Your task to perform on an android device: toggle airplane mode Image 0: 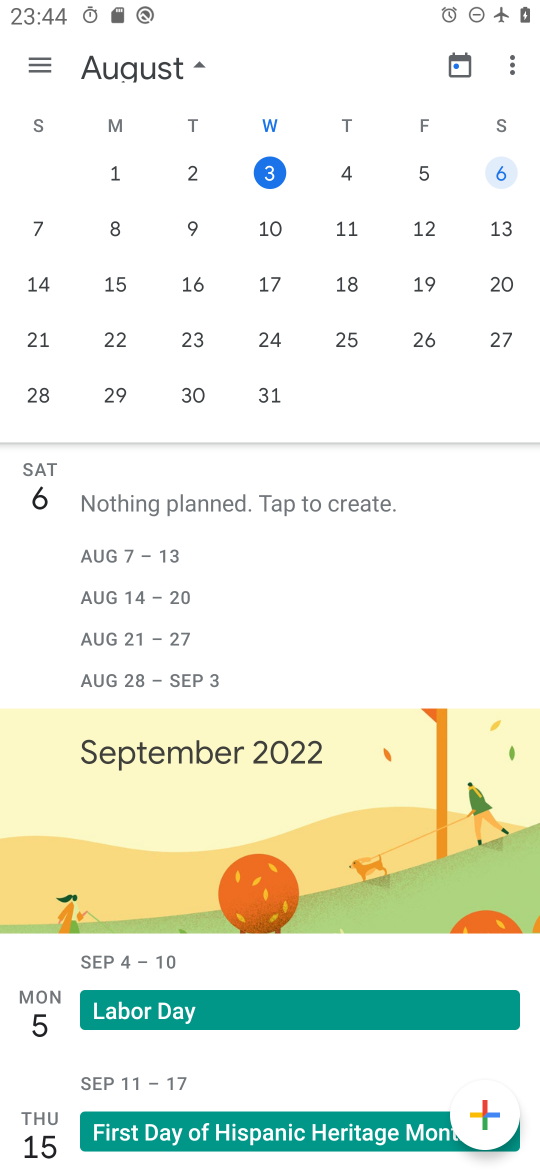
Step 0: press home button
Your task to perform on an android device: toggle airplane mode Image 1: 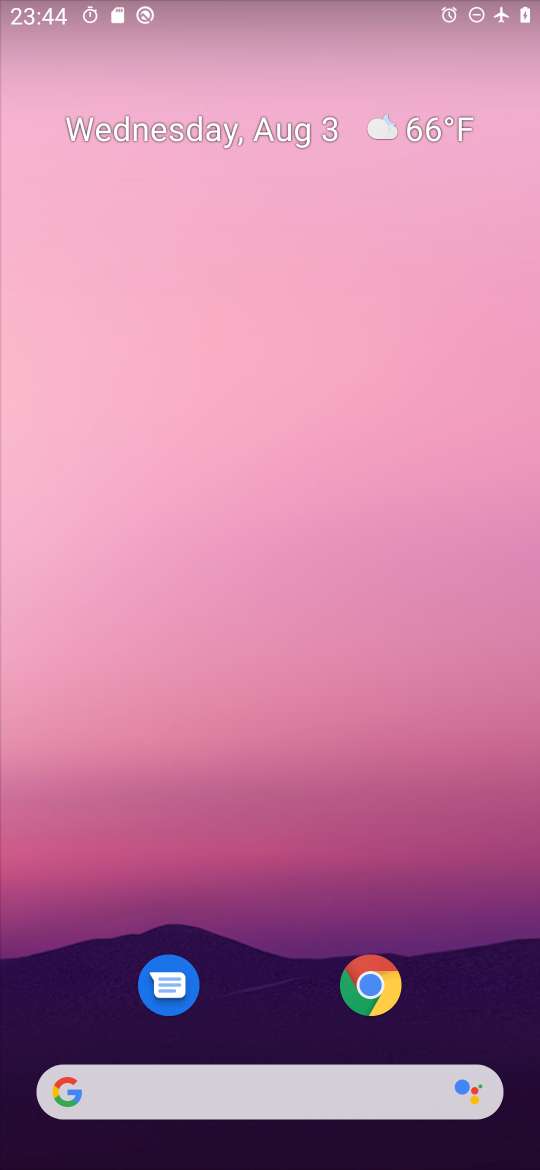
Step 1: drag from (219, 935) to (157, 240)
Your task to perform on an android device: toggle airplane mode Image 2: 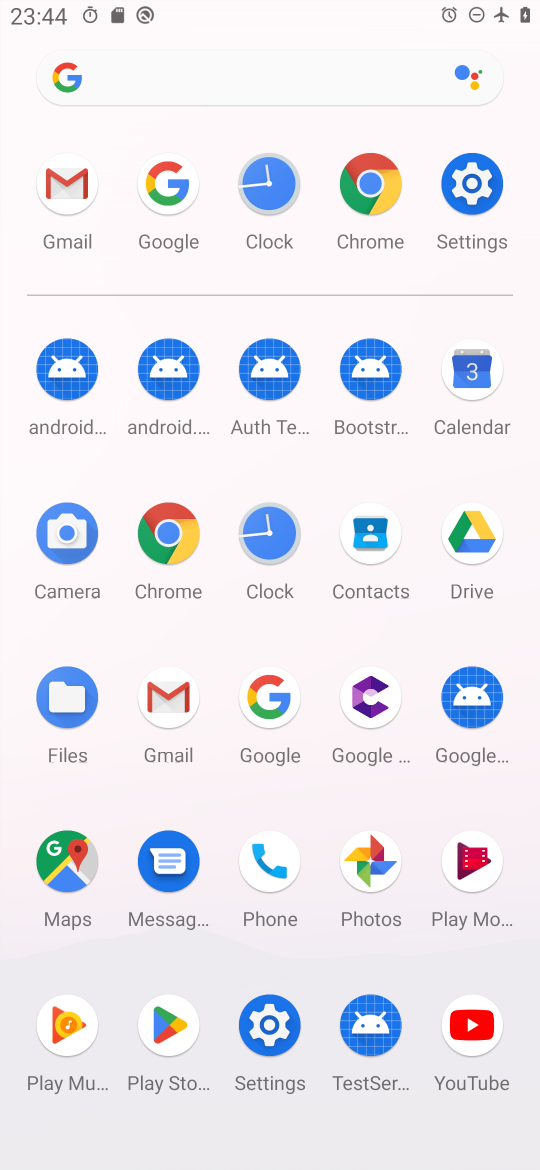
Step 2: click (456, 218)
Your task to perform on an android device: toggle airplane mode Image 3: 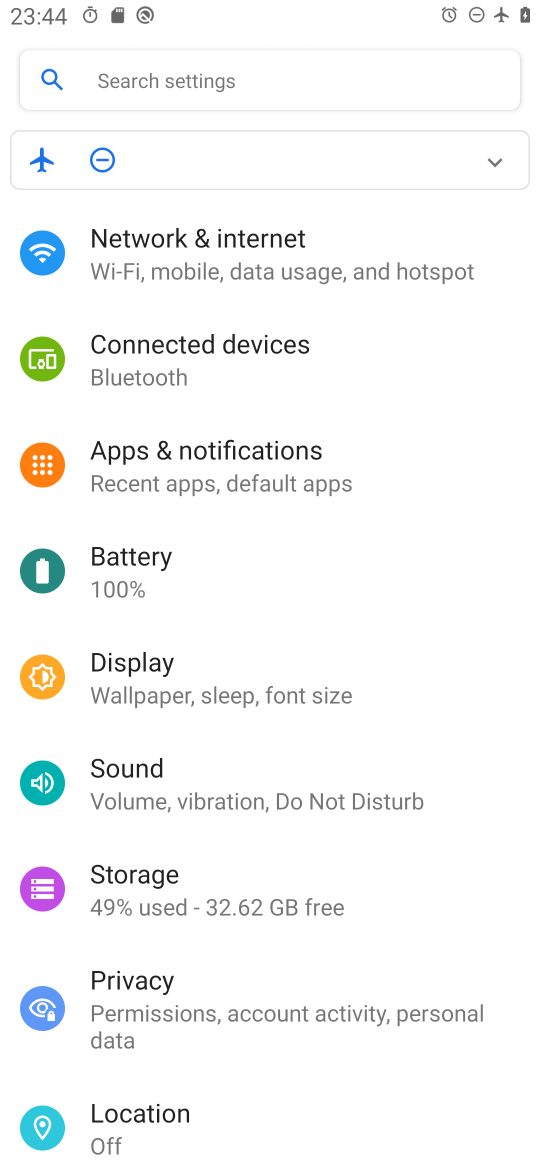
Step 3: click (316, 293)
Your task to perform on an android device: toggle airplane mode Image 4: 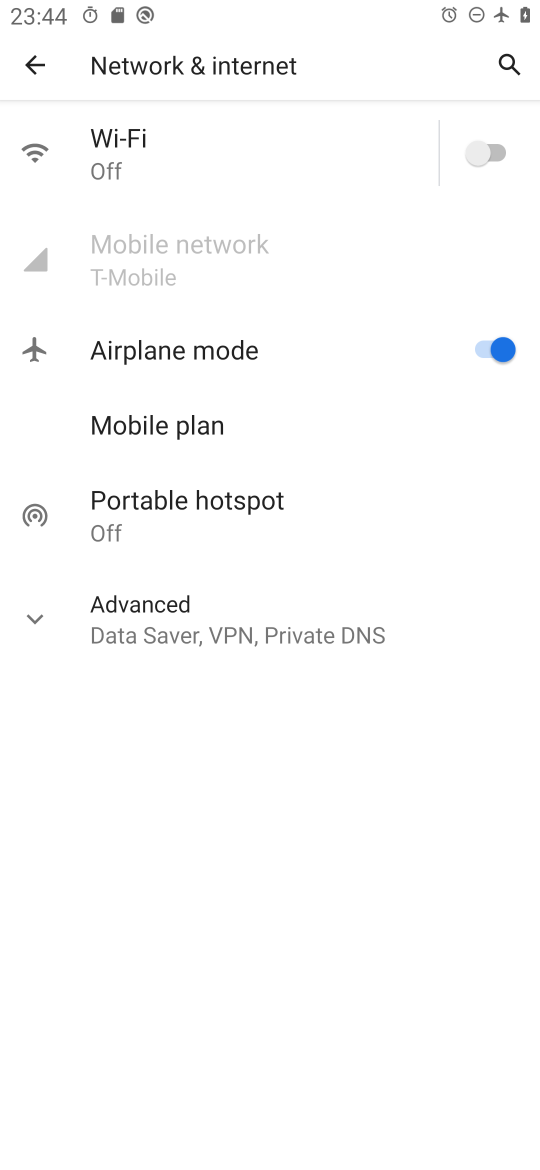
Step 4: click (474, 354)
Your task to perform on an android device: toggle airplane mode Image 5: 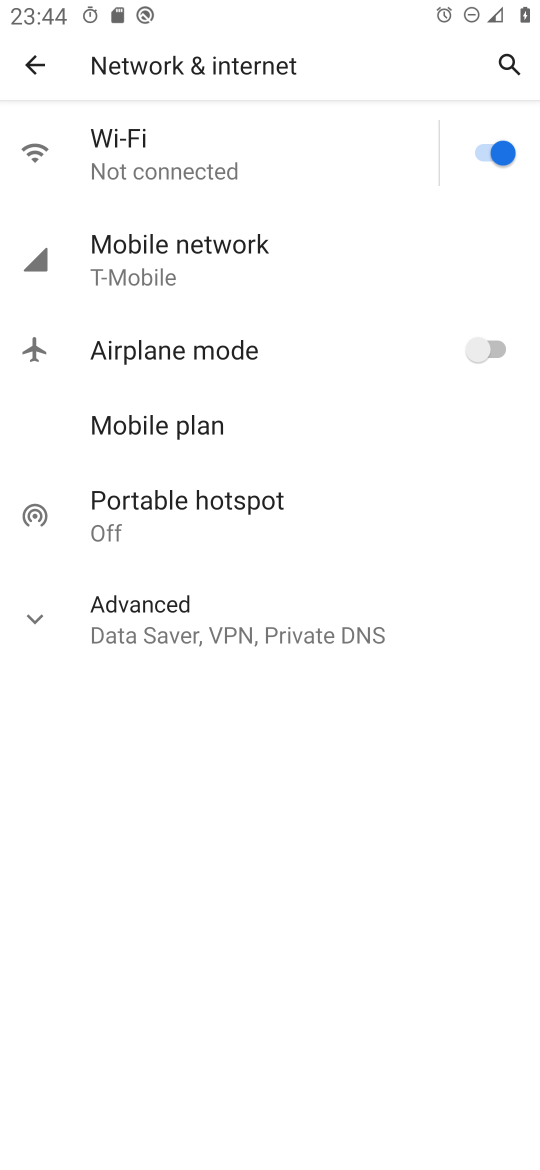
Step 5: task complete